Your task to perform on an android device: open app "Upside-Cash back on gas & food" (install if not already installed) and enter user name: "transatlantic@gmail.com" and password: "experiences" Image 0: 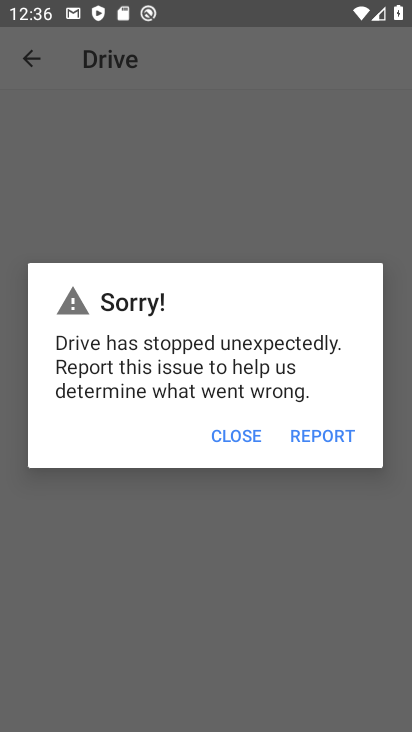
Step 0: press home button
Your task to perform on an android device: open app "Upside-Cash back on gas & food" (install if not already installed) and enter user name: "transatlantic@gmail.com" and password: "experiences" Image 1: 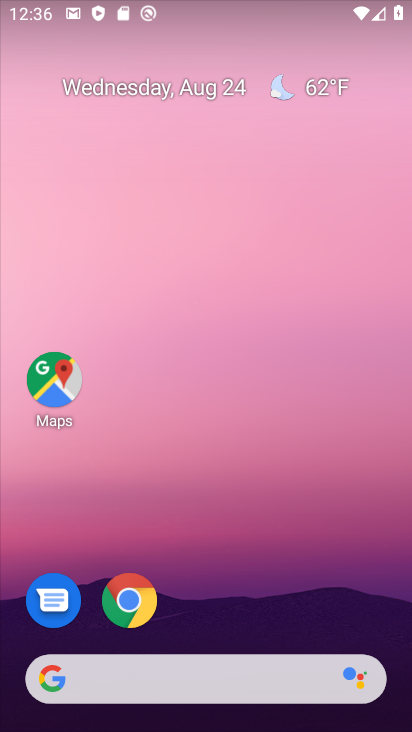
Step 1: drag from (322, 606) to (302, 113)
Your task to perform on an android device: open app "Upside-Cash back on gas & food" (install if not already installed) and enter user name: "transatlantic@gmail.com" and password: "experiences" Image 2: 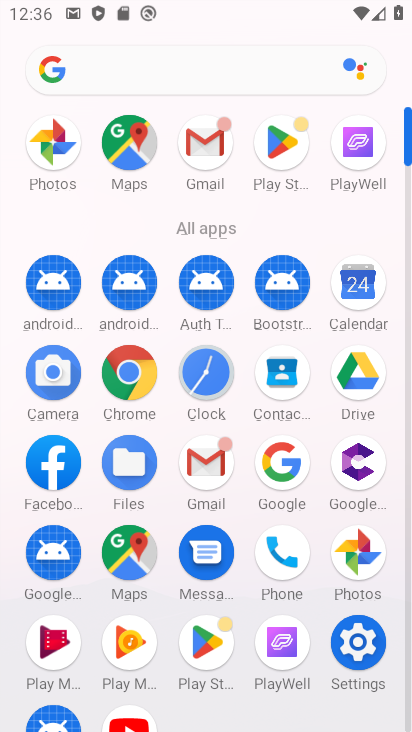
Step 2: click (284, 174)
Your task to perform on an android device: open app "Upside-Cash back on gas & food" (install if not already installed) and enter user name: "transatlantic@gmail.com" and password: "experiences" Image 3: 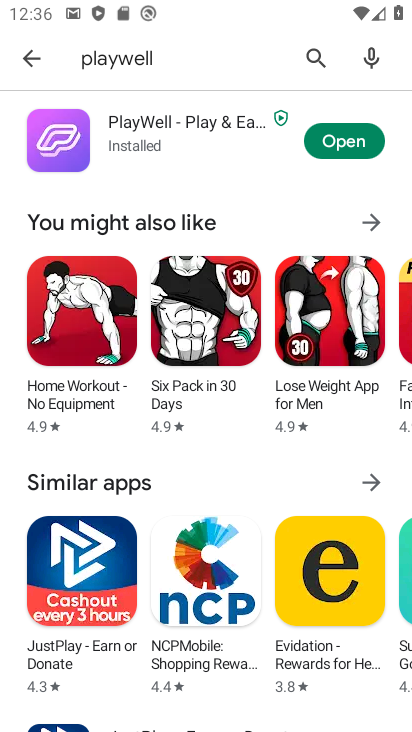
Step 3: click (332, 68)
Your task to perform on an android device: open app "Upside-Cash back on gas & food" (install if not already installed) and enter user name: "transatlantic@gmail.com" and password: "experiences" Image 4: 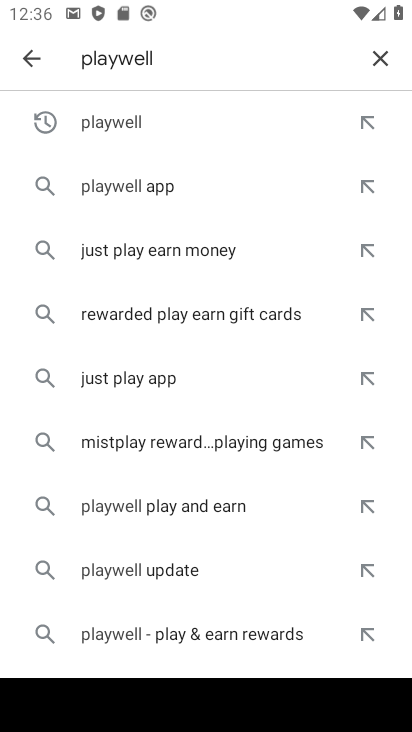
Step 4: click (374, 68)
Your task to perform on an android device: open app "Upside-Cash back on gas & food" (install if not already installed) and enter user name: "transatlantic@gmail.com" and password: "experiences" Image 5: 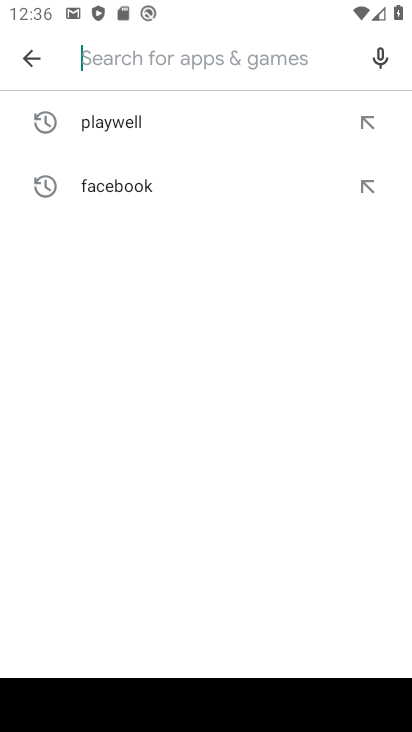
Step 5: type "upside"
Your task to perform on an android device: open app "Upside-Cash back on gas & food" (install if not already installed) and enter user name: "transatlantic@gmail.com" and password: "experiences" Image 6: 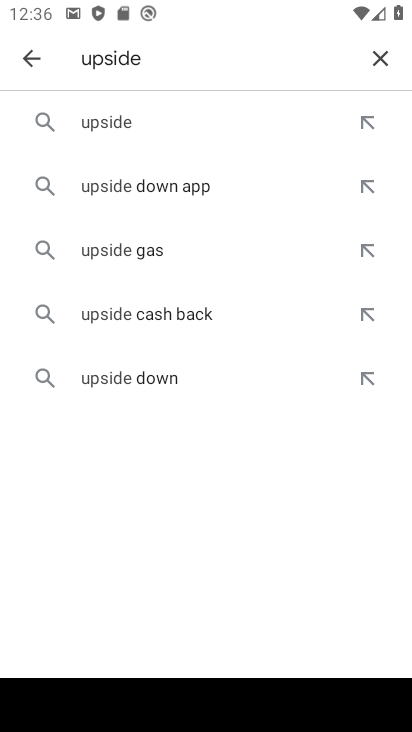
Step 6: click (94, 133)
Your task to perform on an android device: open app "Upside-Cash back on gas & food" (install if not already installed) and enter user name: "transatlantic@gmail.com" and password: "experiences" Image 7: 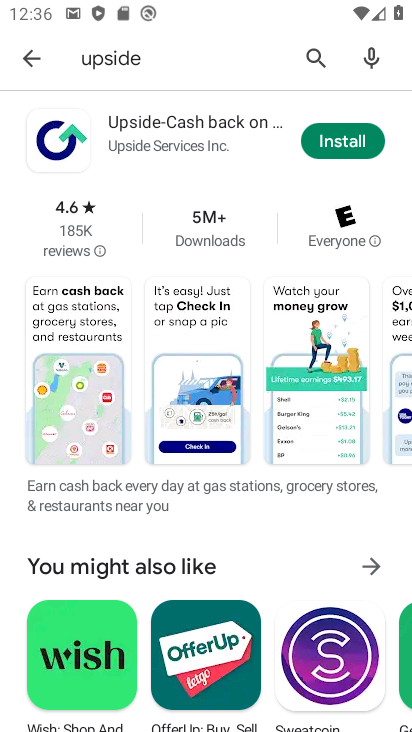
Step 7: click (367, 152)
Your task to perform on an android device: open app "Upside-Cash back on gas & food" (install if not already installed) and enter user name: "transatlantic@gmail.com" and password: "experiences" Image 8: 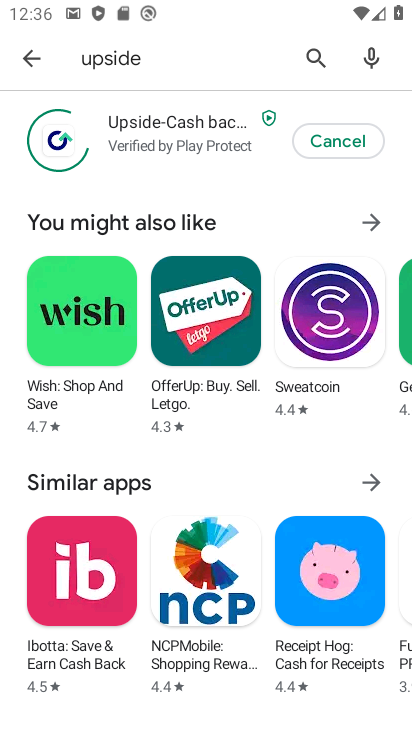
Step 8: task complete